Your task to perform on an android device: See recent photos Image 0: 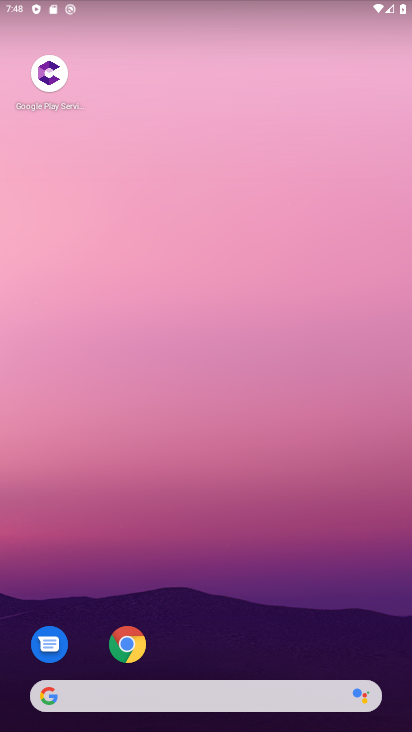
Step 0: drag from (232, 296) to (242, 189)
Your task to perform on an android device: See recent photos Image 1: 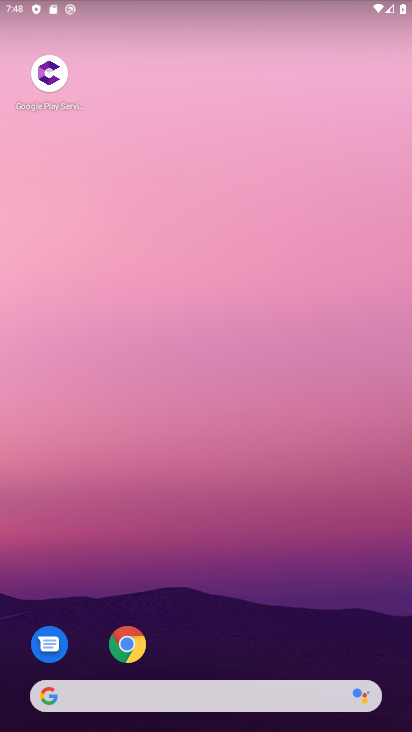
Step 1: drag from (244, 307) to (252, 194)
Your task to perform on an android device: See recent photos Image 2: 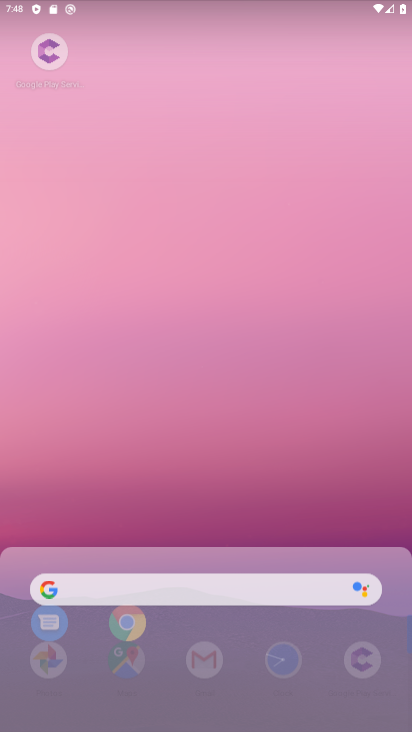
Step 2: drag from (248, 453) to (242, 175)
Your task to perform on an android device: See recent photos Image 3: 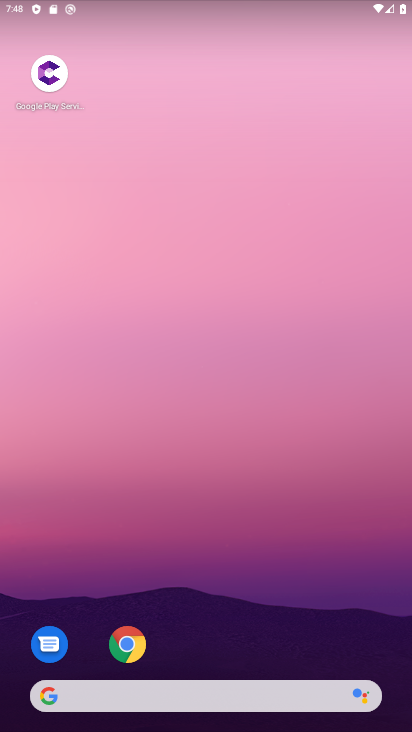
Step 3: drag from (188, 485) to (195, 132)
Your task to perform on an android device: See recent photos Image 4: 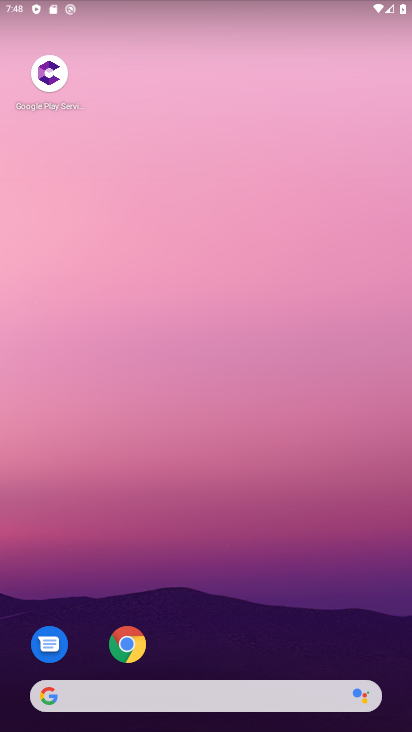
Step 4: drag from (176, 436) to (194, 160)
Your task to perform on an android device: See recent photos Image 5: 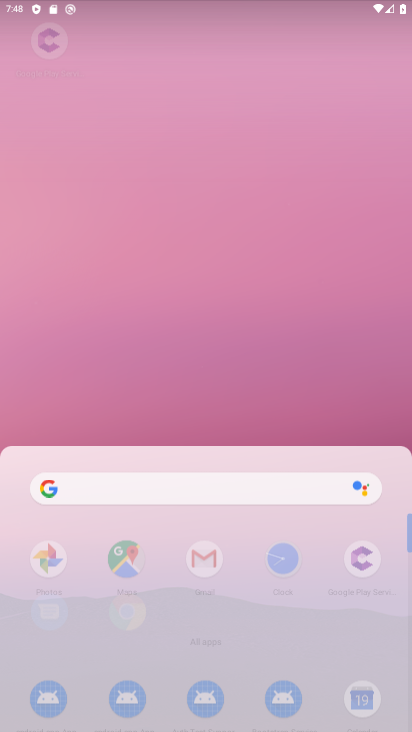
Step 5: drag from (196, 463) to (222, 152)
Your task to perform on an android device: See recent photos Image 6: 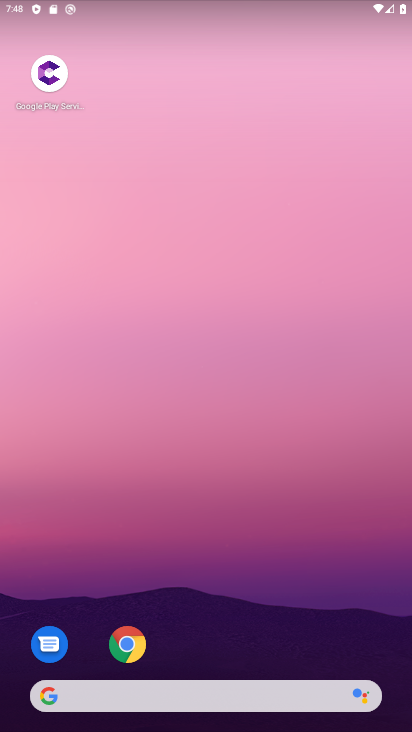
Step 6: drag from (247, 216) to (242, 155)
Your task to perform on an android device: See recent photos Image 7: 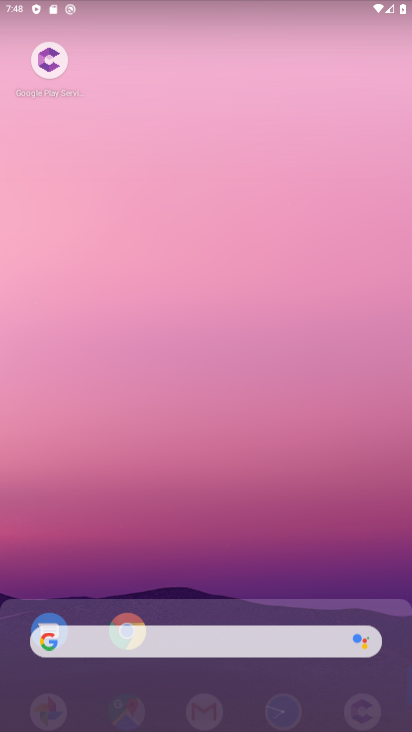
Step 7: drag from (178, 556) to (204, 138)
Your task to perform on an android device: See recent photos Image 8: 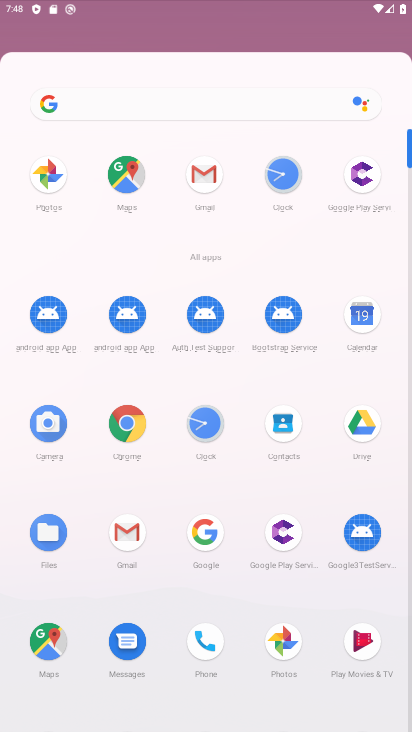
Step 8: drag from (252, 430) to (240, 65)
Your task to perform on an android device: See recent photos Image 9: 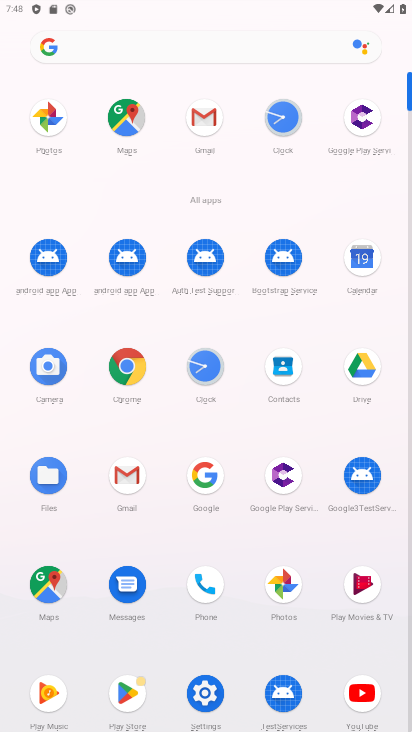
Step 9: click (290, 578)
Your task to perform on an android device: See recent photos Image 10: 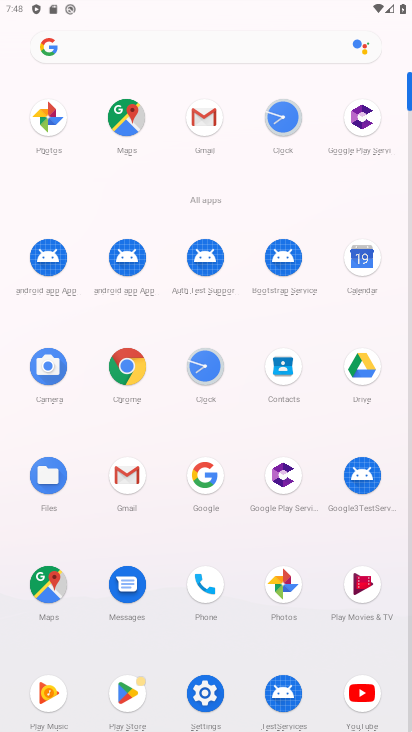
Step 10: click (290, 578)
Your task to perform on an android device: See recent photos Image 11: 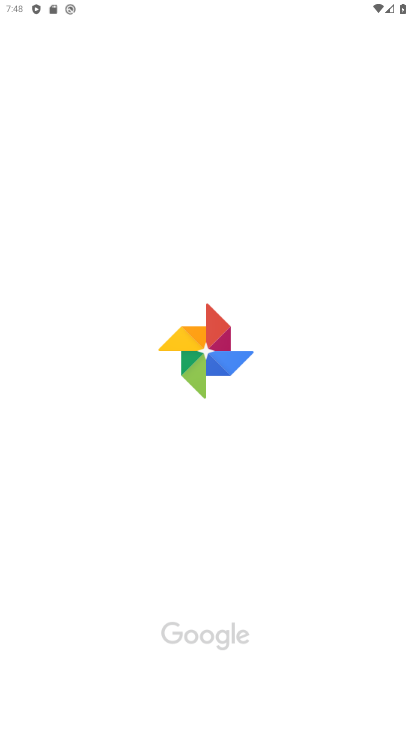
Step 11: click (291, 581)
Your task to perform on an android device: See recent photos Image 12: 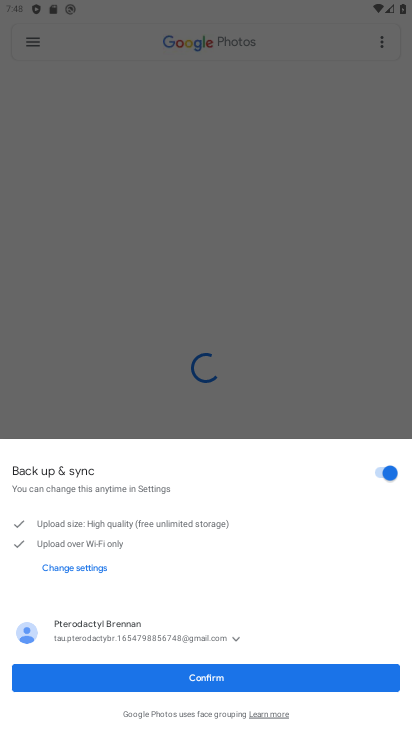
Step 12: click (217, 688)
Your task to perform on an android device: See recent photos Image 13: 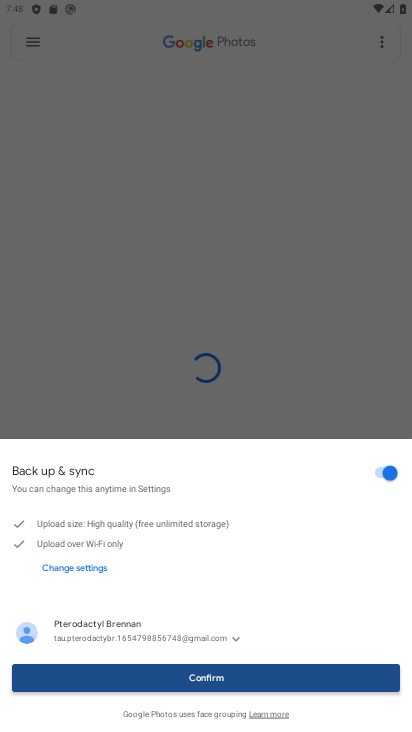
Step 13: click (217, 688)
Your task to perform on an android device: See recent photos Image 14: 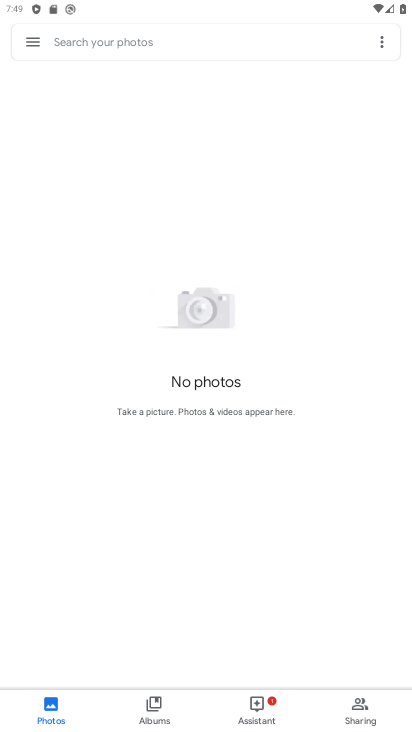
Step 14: click (49, 712)
Your task to perform on an android device: See recent photos Image 15: 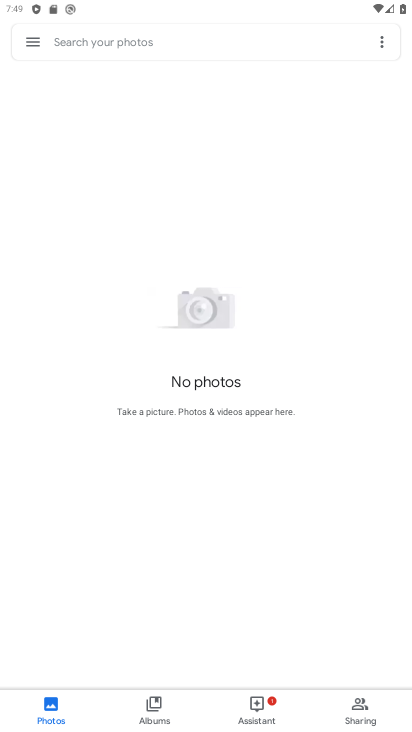
Step 15: task complete